Your task to perform on an android device: Open Chrome and go to settings Image 0: 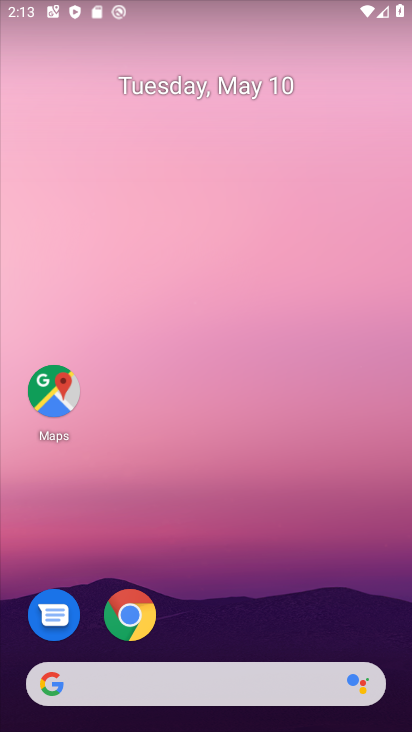
Step 0: click (116, 616)
Your task to perform on an android device: Open Chrome and go to settings Image 1: 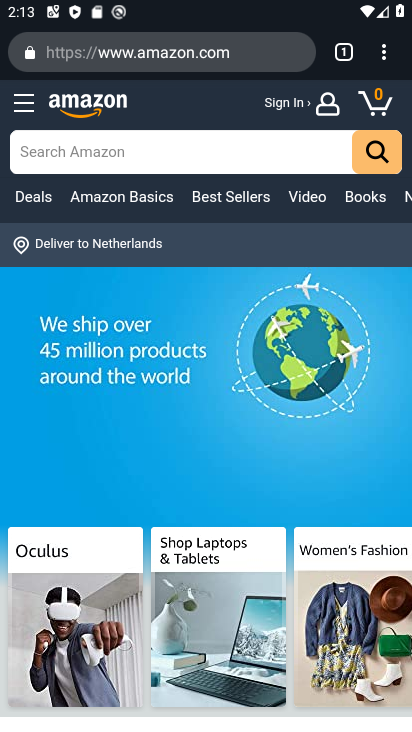
Step 1: task complete